Your task to perform on an android device: Open Reddit.com Image 0: 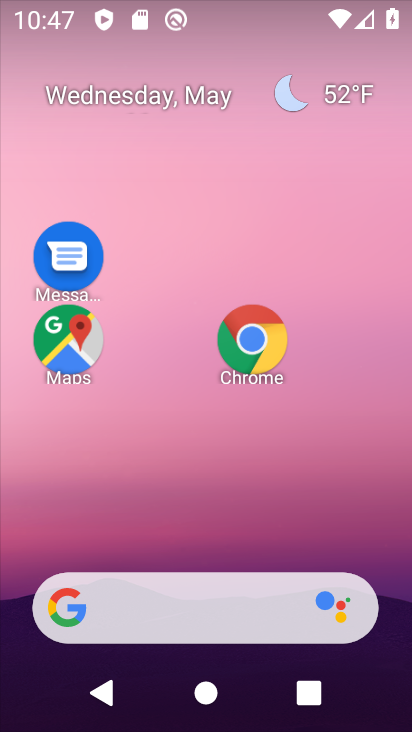
Step 0: drag from (213, 484) to (154, 27)
Your task to perform on an android device: Open Reddit.com Image 1: 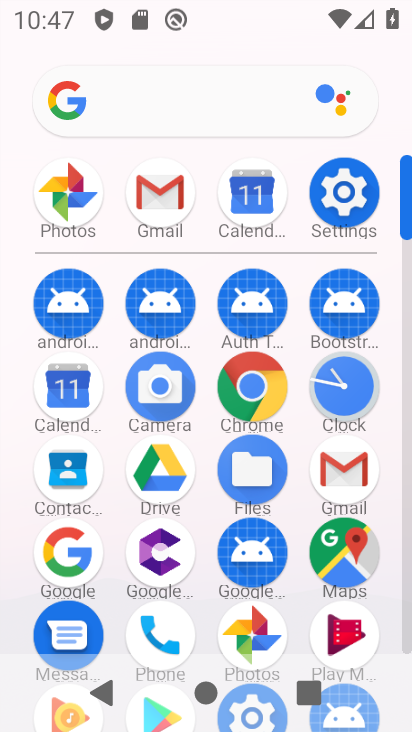
Step 1: click (68, 549)
Your task to perform on an android device: Open Reddit.com Image 2: 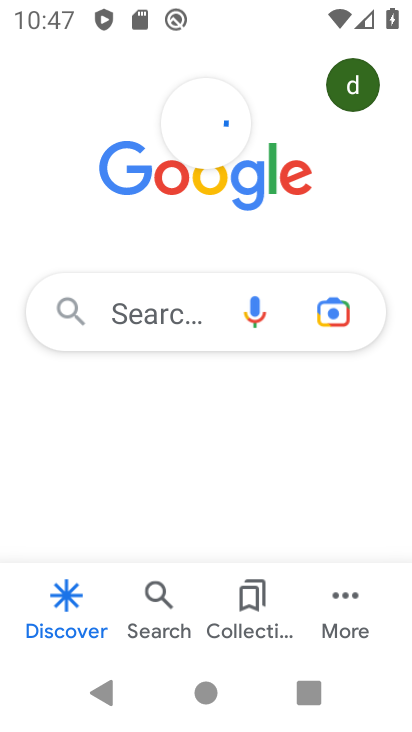
Step 2: click (146, 300)
Your task to perform on an android device: Open Reddit.com Image 3: 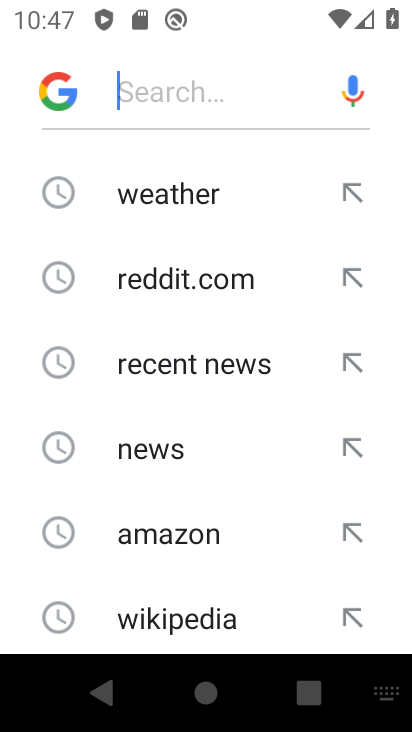
Step 3: click (192, 288)
Your task to perform on an android device: Open Reddit.com Image 4: 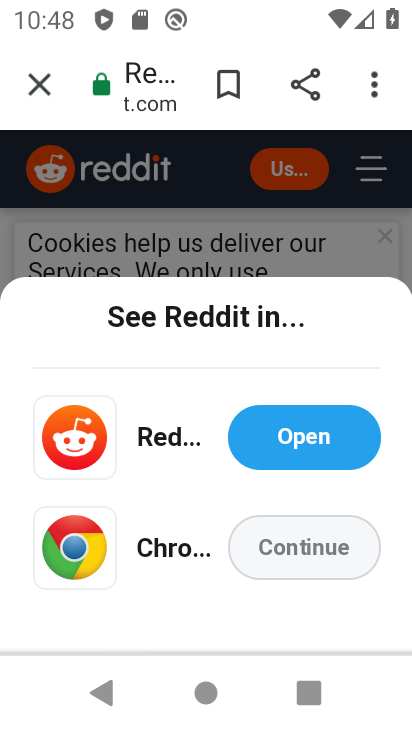
Step 4: task complete